Your task to perform on an android device: What's the weather going to be tomorrow? Image 0: 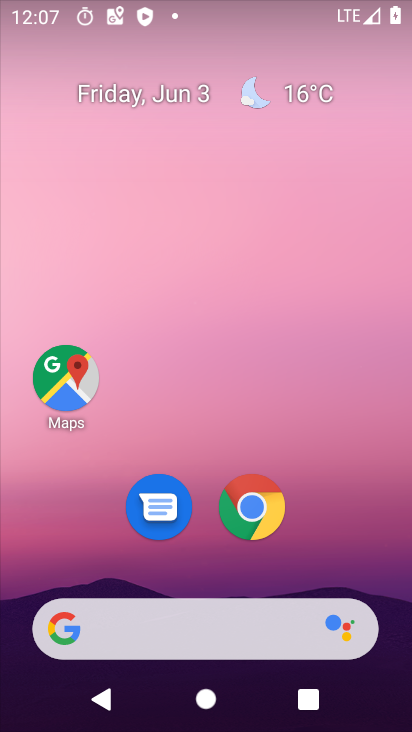
Step 0: drag from (391, 627) to (249, 146)
Your task to perform on an android device: What's the weather going to be tomorrow? Image 1: 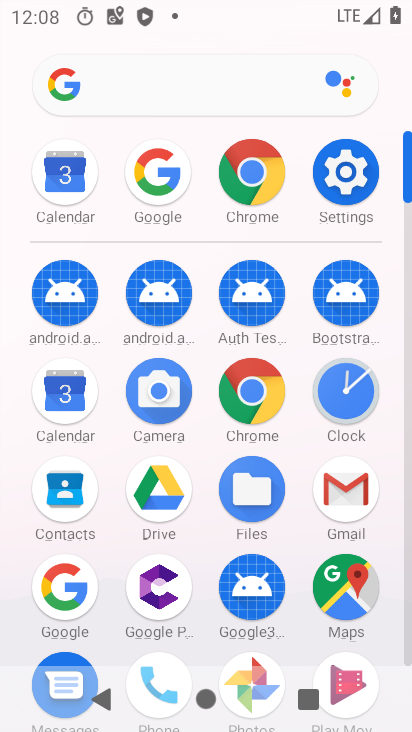
Step 1: click (70, 585)
Your task to perform on an android device: What's the weather going to be tomorrow? Image 2: 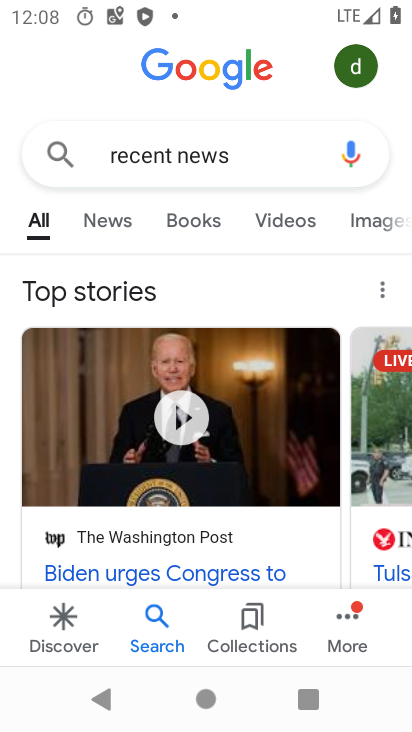
Step 2: press back button
Your task to perform on an android device: What's the weather going to be tomorrow? Image 3: 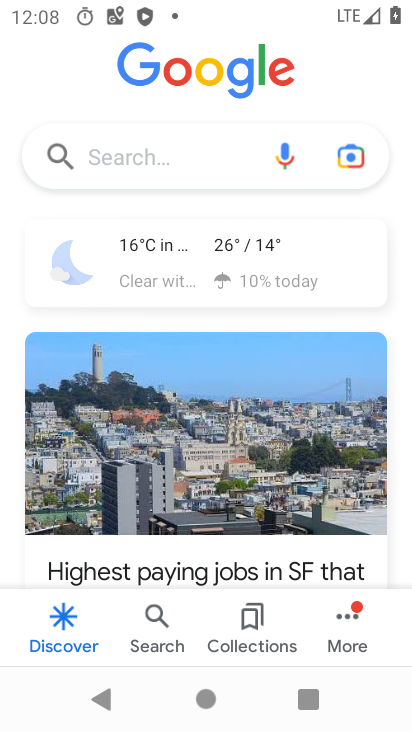
Step 3: click (133, 159)
Your task to perform on an android device: What's the weather going to be tomorrow? Image 4: 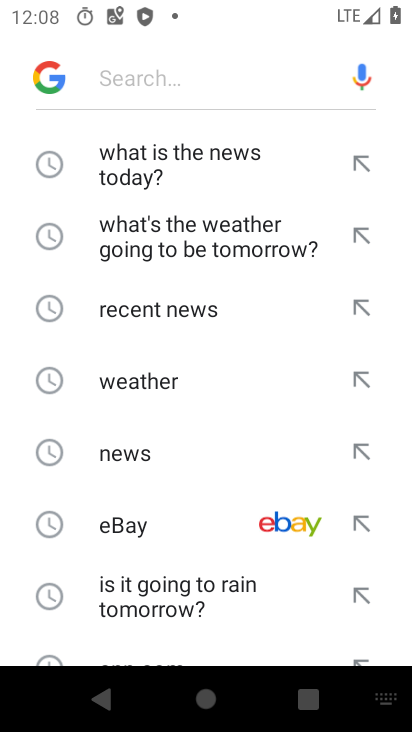
Step 4: click (159, 250)
Your task to perform on an android device: What's the weather going to be tomorrow? Image 5: 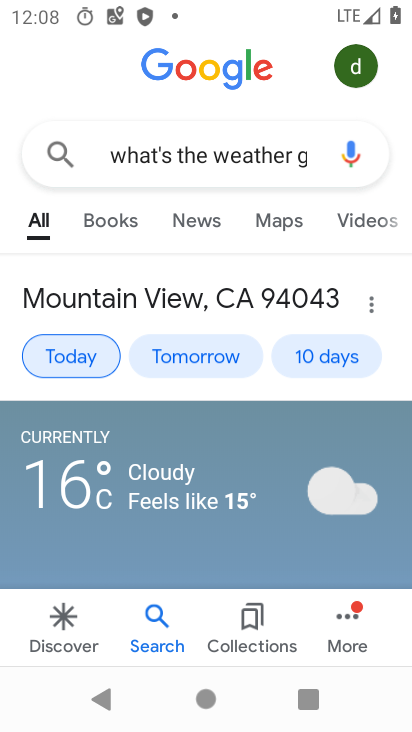
Step 5: task complete